Your task to perform on an android device: What's on my calendar today? Image 0: 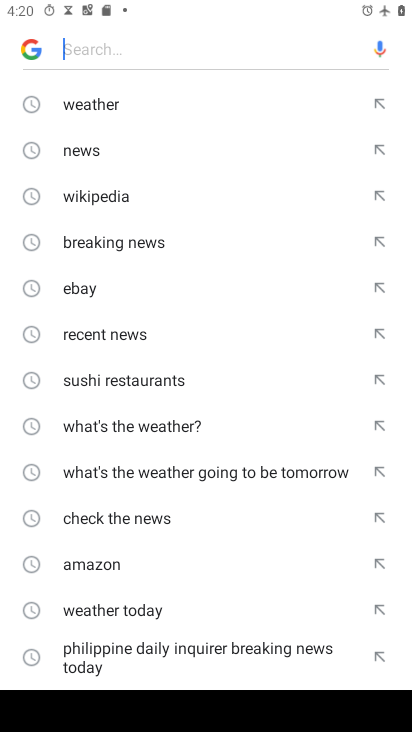
Step 0: press home button
Your task to perform on an android device: What's on my calendar today? Image 1: 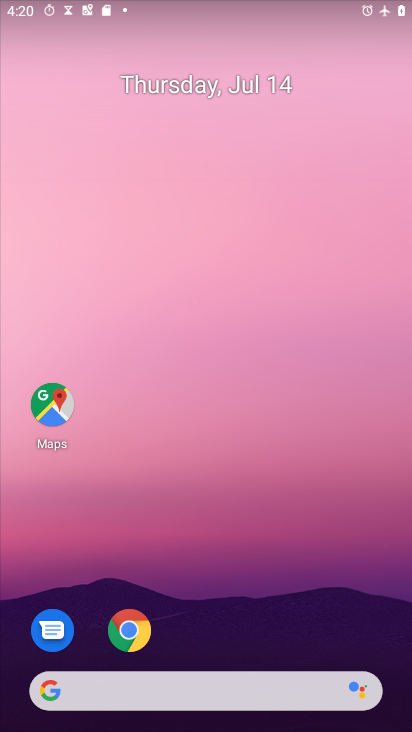
Step 1: drag from (205, 726) to (201, 211)
Your task to perform on an android device: What's on my calendar today? Image 2: 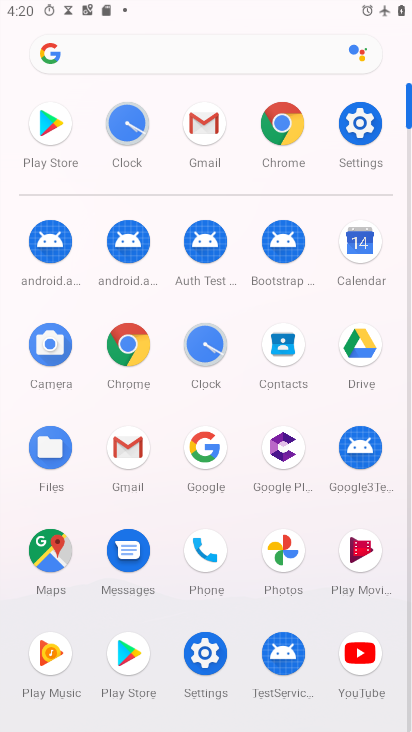
Step 2: click (365, 246)
Your task to perform on an android device: What's on my calendar today? Image 3: 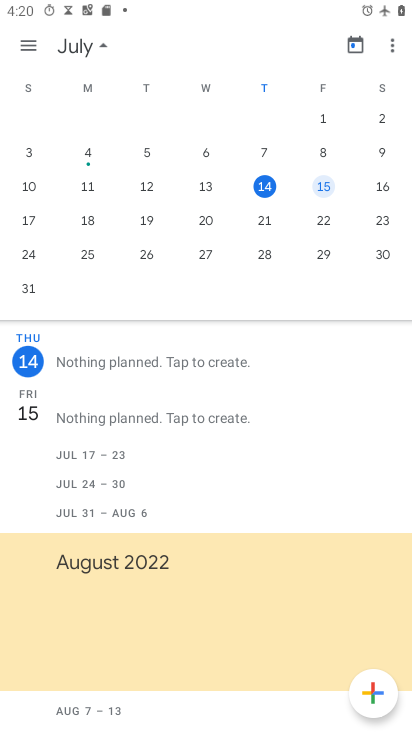
Step 3: click (264, 184)
Your task to perform on an android device: What's on my calendar today? Image 4: 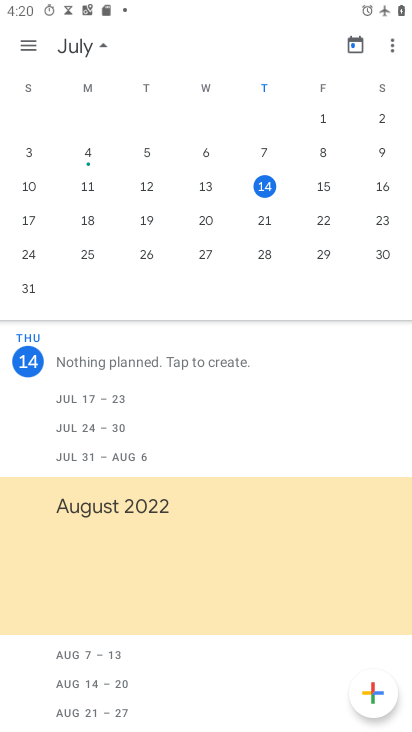
Step 4: click (261, 182)
Your task to perform on an android device: What's on my calendar today? Image 5: 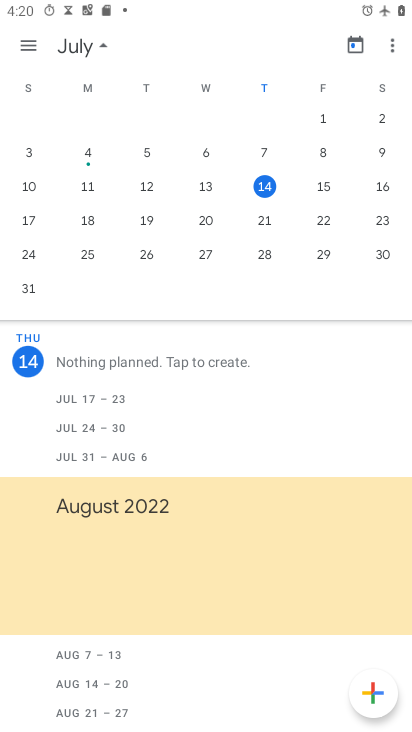
Step 5: task complete